Your task to perform on an android device: turn on the 24-hour format for clock Image 0: 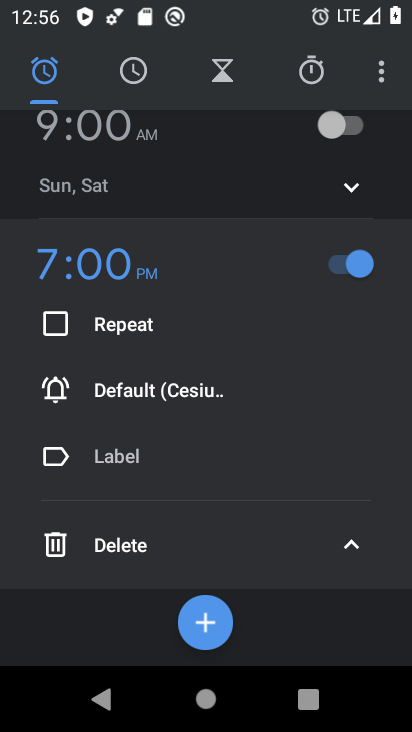
Step 0: click (373, 77)
Your task to perform on an android device: turn on the 24-hour format for clock Image 1: 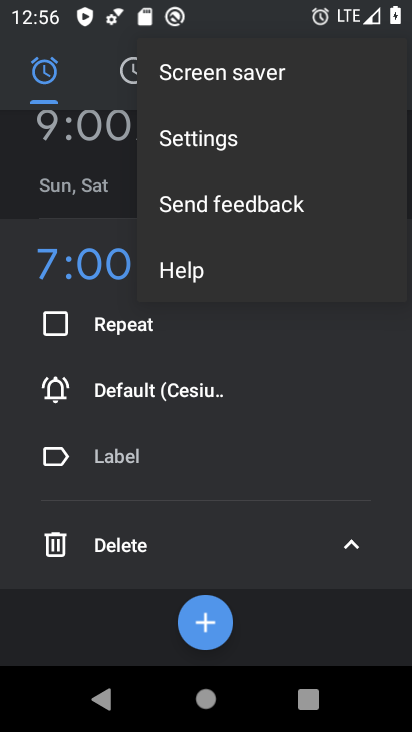
Step 1: click (218, 145)
Your task to perform on an android device: turn on the 24-hour format for clock Image 2: 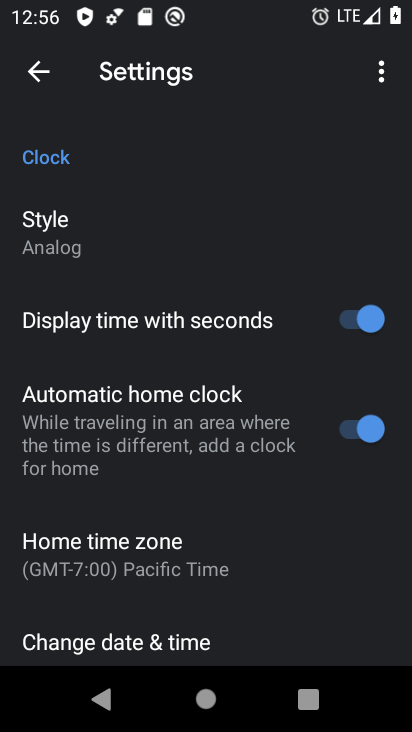
Step 2: click (74, 649)
Your task to perform on an android device: turn on the 24-hour format for clock Image 3: 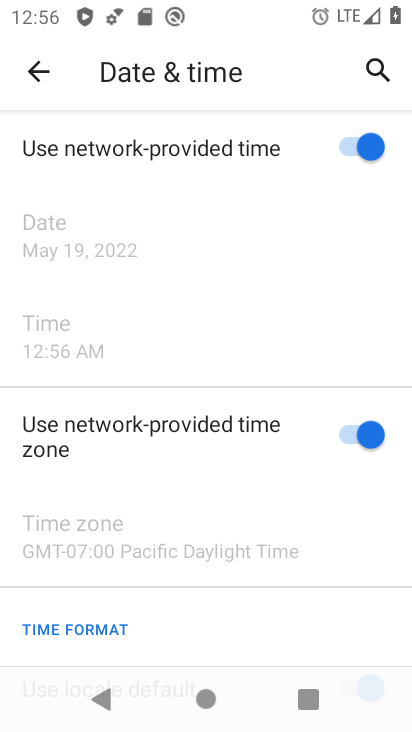
Step 3: drag from (122, 588) to (147, 335)
Your task to perform on an android device: turn on the 24-hour format for clock Image 4: 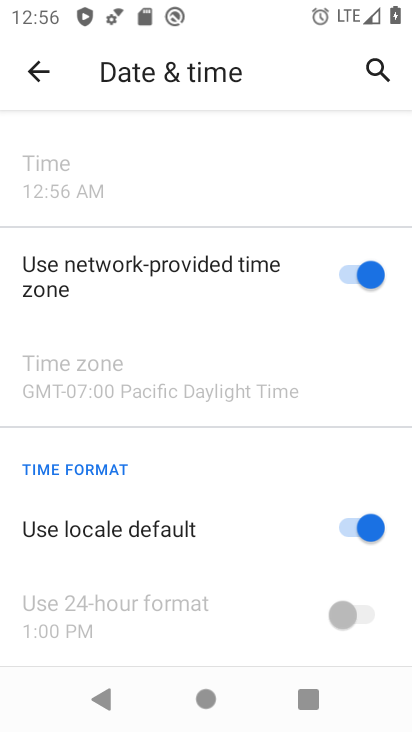
Step 4: drag from (207, 618) to (206, 389)
Your task to perform on an android device: turn on the 24-hour format for clock Image 5: 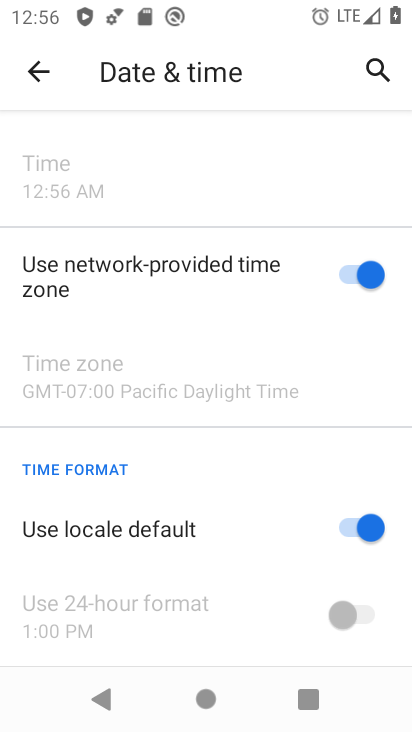
Step 5: click (351, 527)
Your task to perform on an android device: turn on the 24-hour format for clock Image 6: 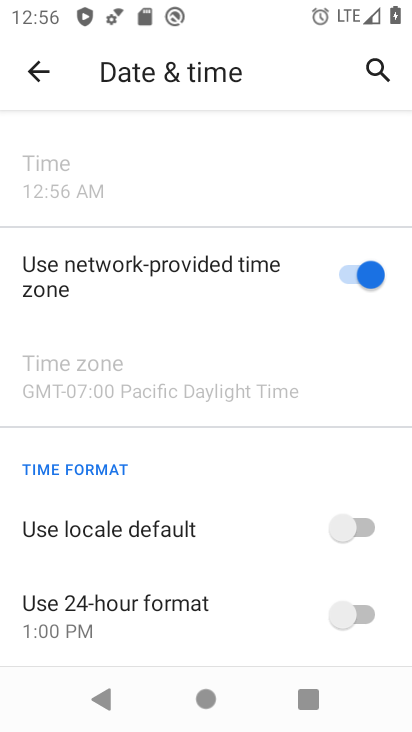
Step 6: click (353, 615)
Your task to perform on an android device: turn on the 24-hour format for clock Image 7: 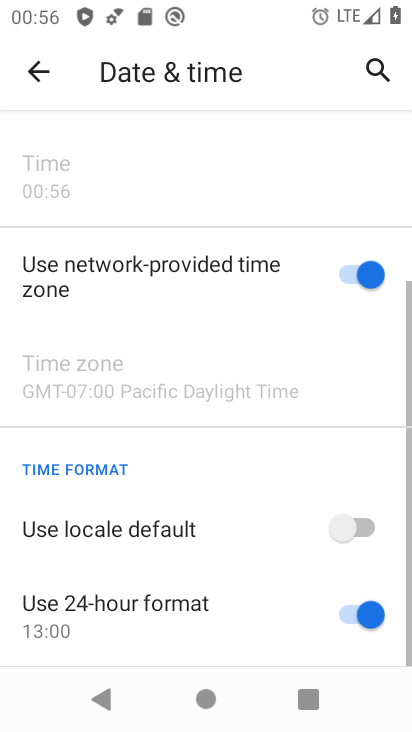
Step 7: task complete